Your task to perform on an android device: turn off notifications settings in the gmail app Image 0: 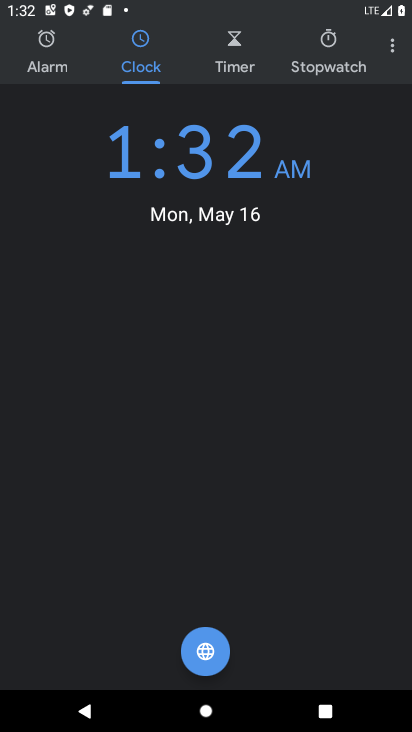
Step 0: press back button
Your task to perform on an android device: turn off notifications settings in the gmail app Image 1: 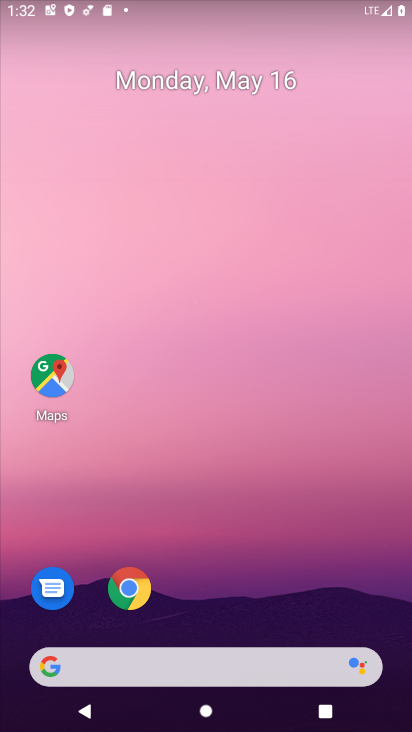
Step 1: drag from (240, 578) to (164, 54)
Your task to perform on an android device: turn off notifications settings in the gmail app Image 2: 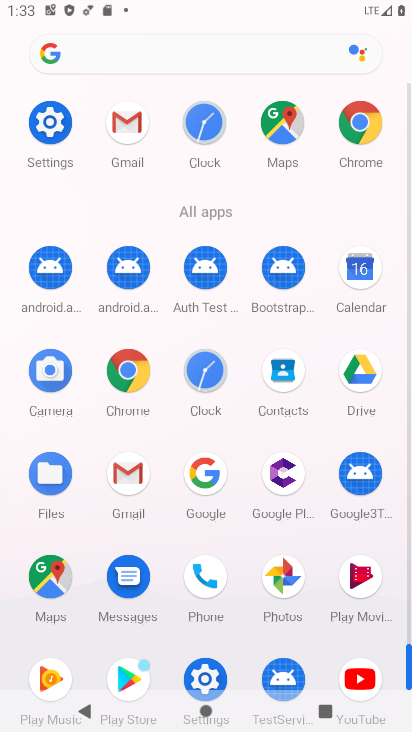
Step 2: click (124, 122)
Your task to perform on an android device: turn off notifications settings in the gmail app Image 3: 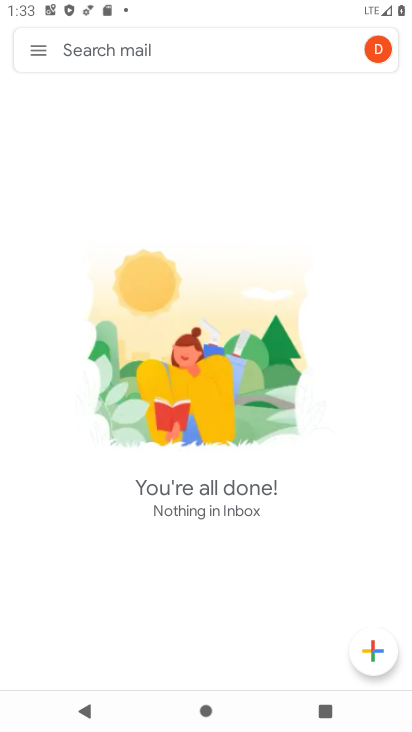
Step 3: click (40, 50)
Your task to perform on an android device: turn off notifications settings in the gmail app Image 4: 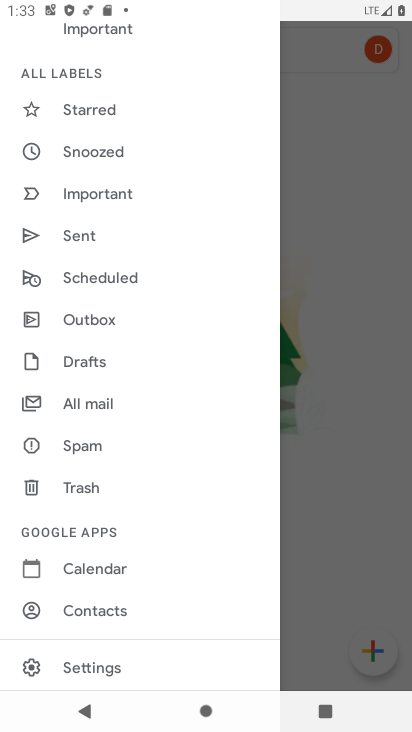
Step 4: click (89, 670)
Your task to perform on an android device: turn off notifications settings in the gmail app Image 5: 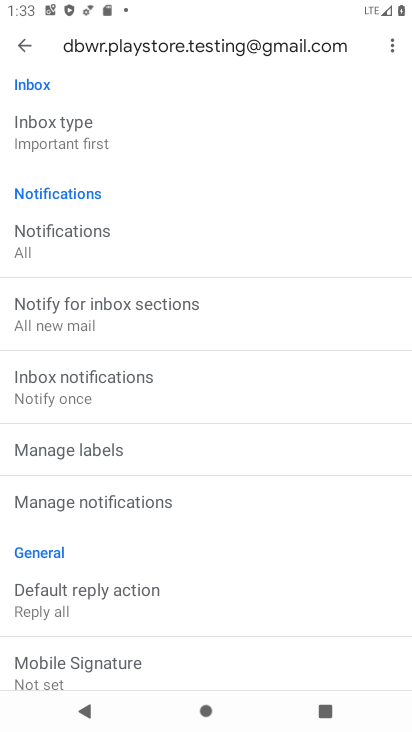
Step 5: click (106, 501)
Your task to perform on an android device: turn off notifications settings in the gmail app Image 6: 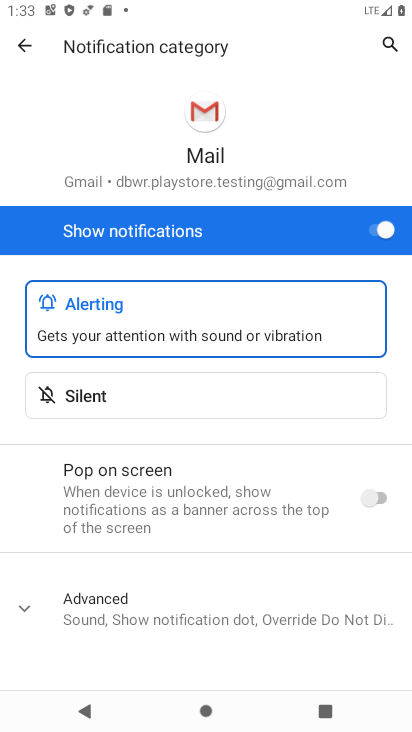
Step 6: click (382, 238)
Your task to perform on an android device: turn off notifications settings in the gmail app Image 7: 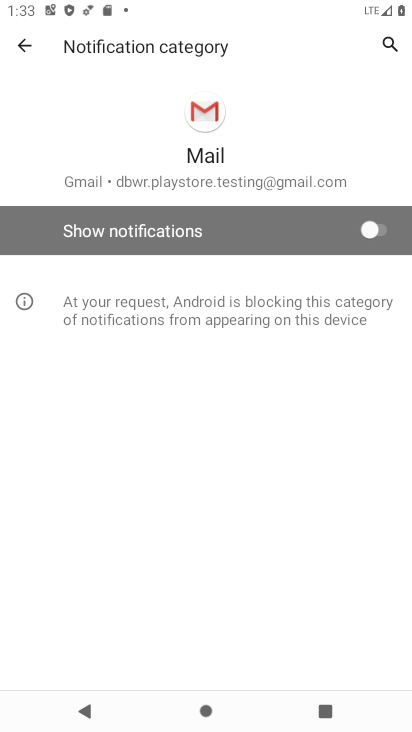
Step 7: task complete